Your task to perform on an android device: Go to wifi settings Image 0: 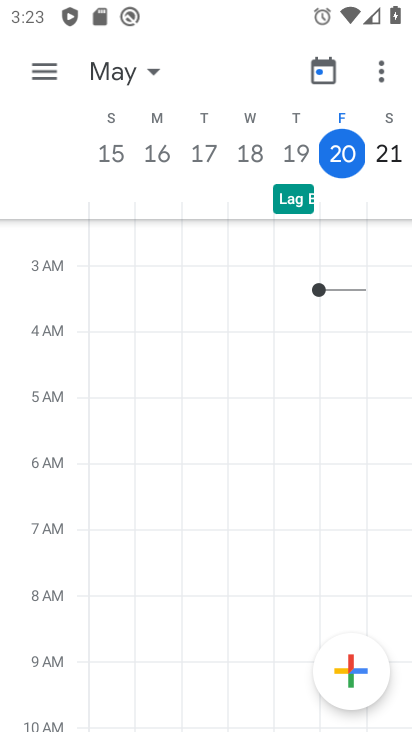
Step 0: press home button
Your task to perform on an android device: Go to wifi settings Image 1: 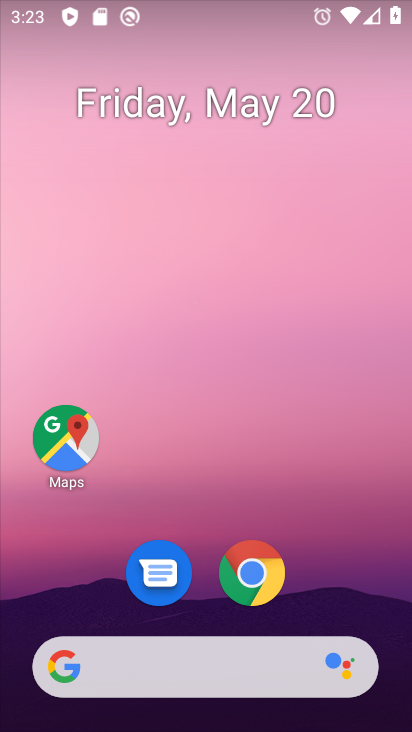
Step 1: drag from (222, 592) to (220, 161)
Your task to perform on an android device: Go to wifi settings Image 2: 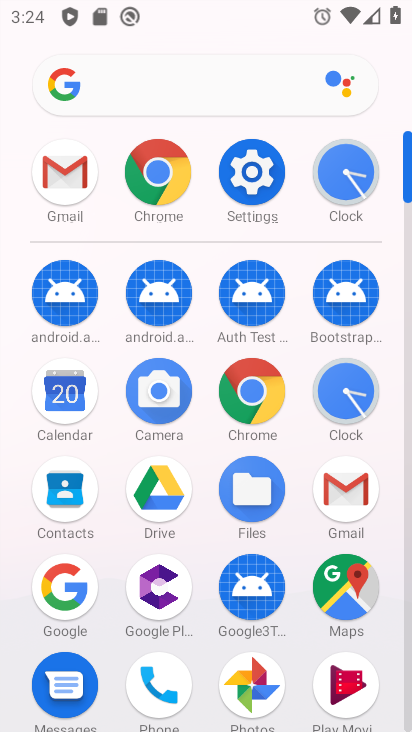
Step 2: click (248, 176)
Your task to perform on an android device: Go to wifi settings Image 3: 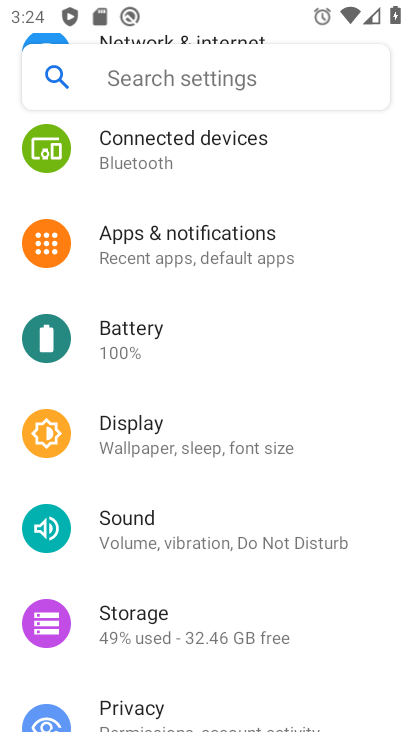
Step 3: drag from (219, 243) to (180, 570)
Your task to perform on an android device: Go to wifi settings Image 4: 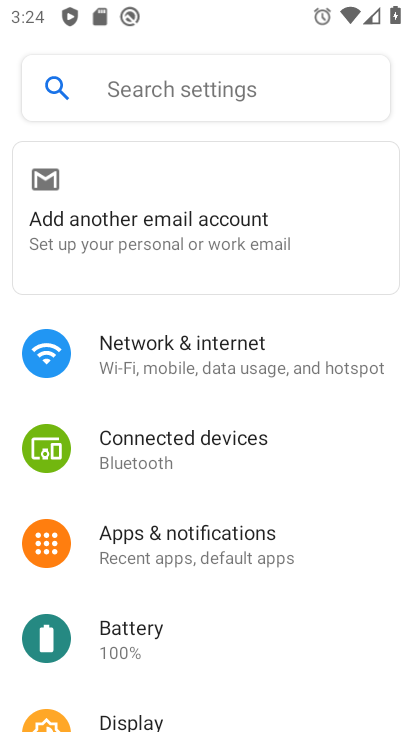
Step 4: click (207, 354)
Your task to perform on an android device: Go to wifi settings Image 5: 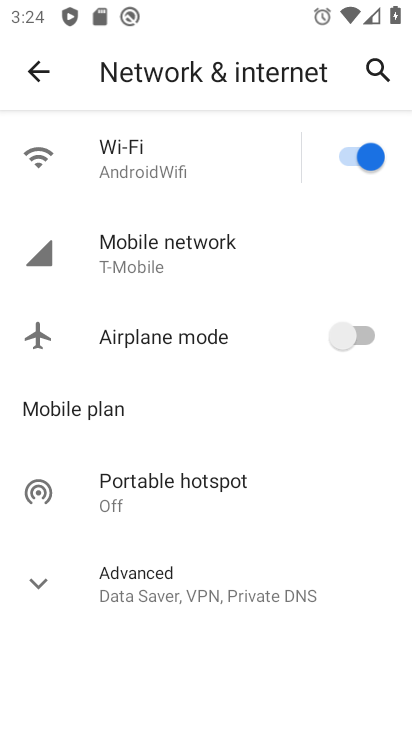
Step 5: click (162, 181)
Your task to perform on an android device: Go to wifi settings Image 6: 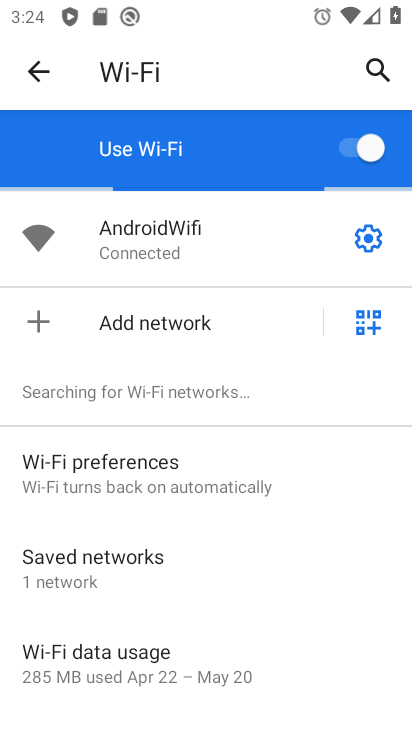
Step 6: task complete